Your task to perform on an android device: set the stopwatch Image 0: 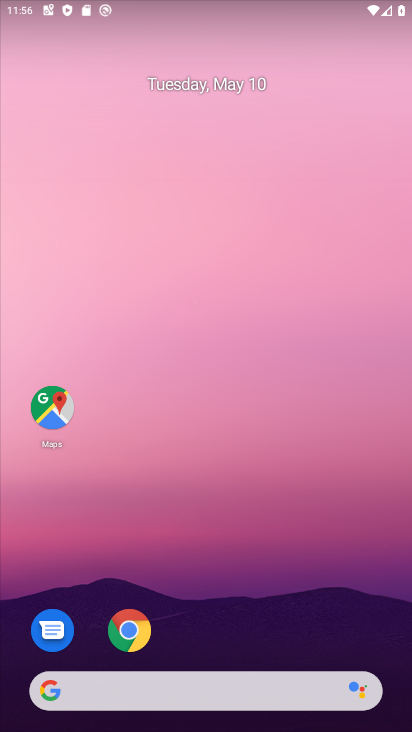
Step 0: drag from (225, 414) to (219, 3)
Your task to perform on an android device: set the stopwatch Image 1: 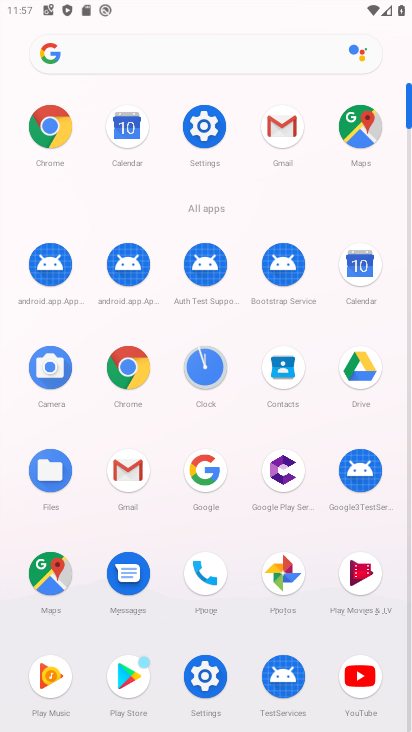
Step 1: click (194, 361)
Your task to perform on an android device: set the stopwatch Image 2: 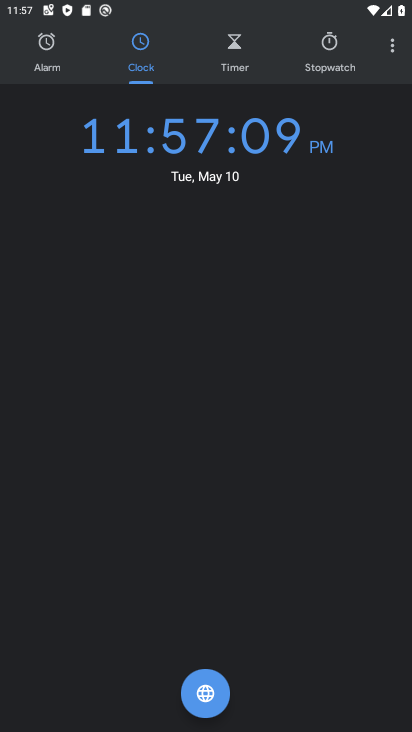
Step 2: click (319, 63)
Your task to perform on an android device: set the stopwatch Image 3: 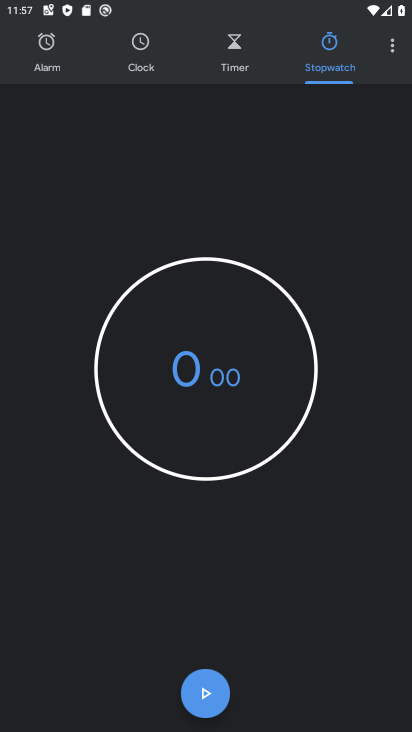
Step 3: click (209, 692)
Your task to perform on an android device: set the stopwatch Image 4: 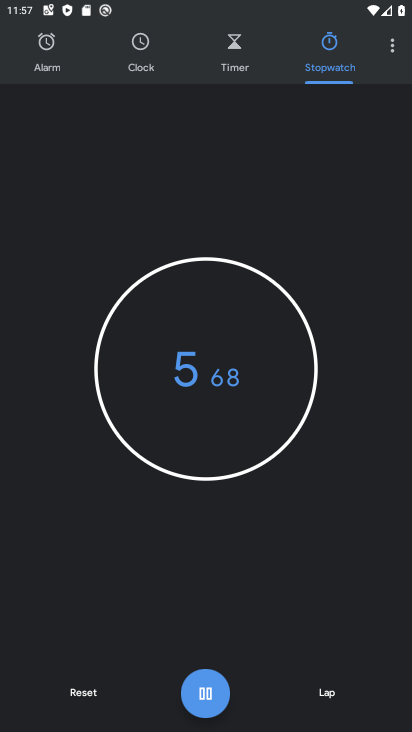
Step 4: click (217, 680)
Your task to perform on an android device: set the stopwatch Image 5: 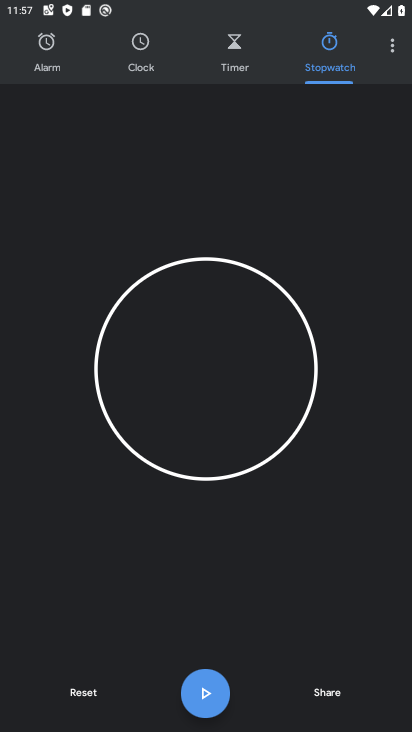
Step 5: task complete